Your task to perform on an android device: Search for a new mascara on Sephora Image 0: 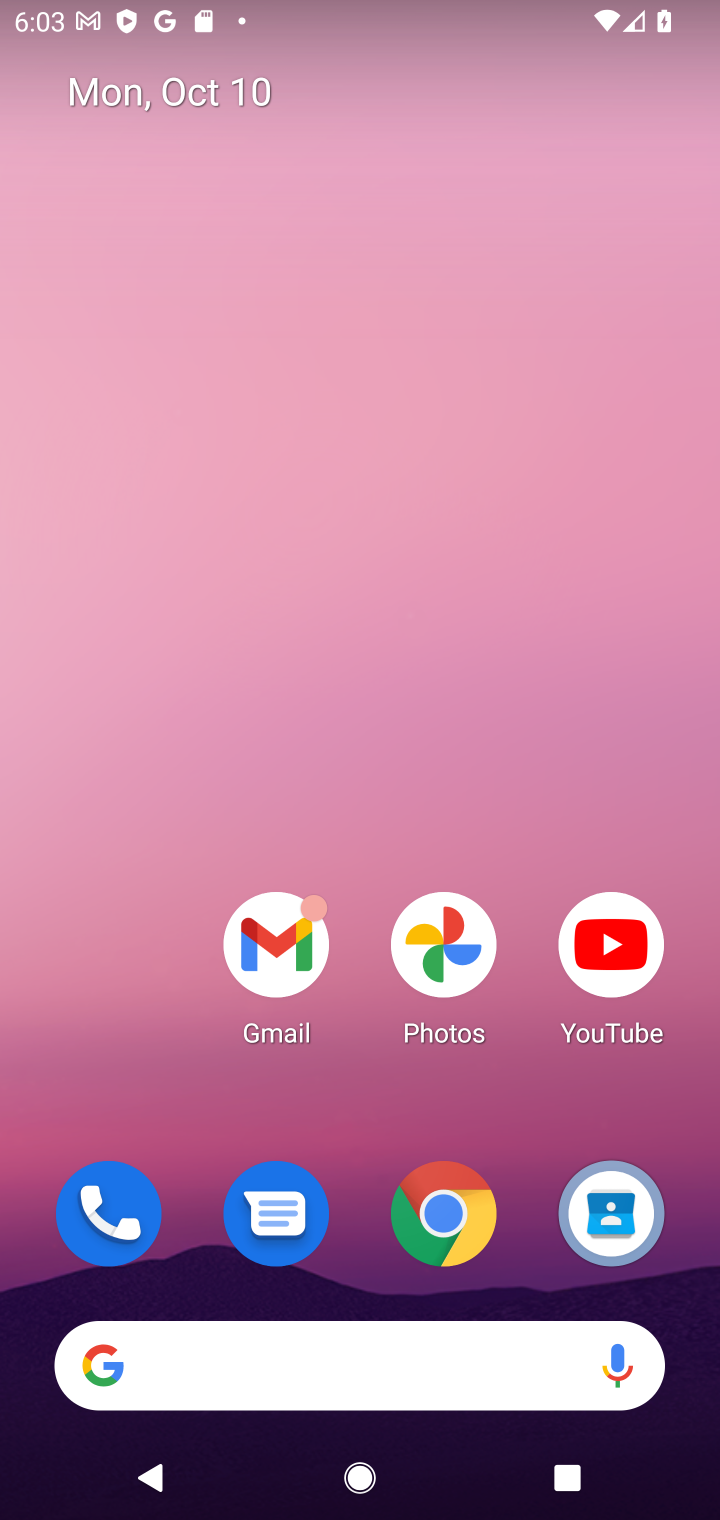
Step 0: click (263, 1362)
Your task to perform on an android device: Search for a new mascara on Sephora Image 1: 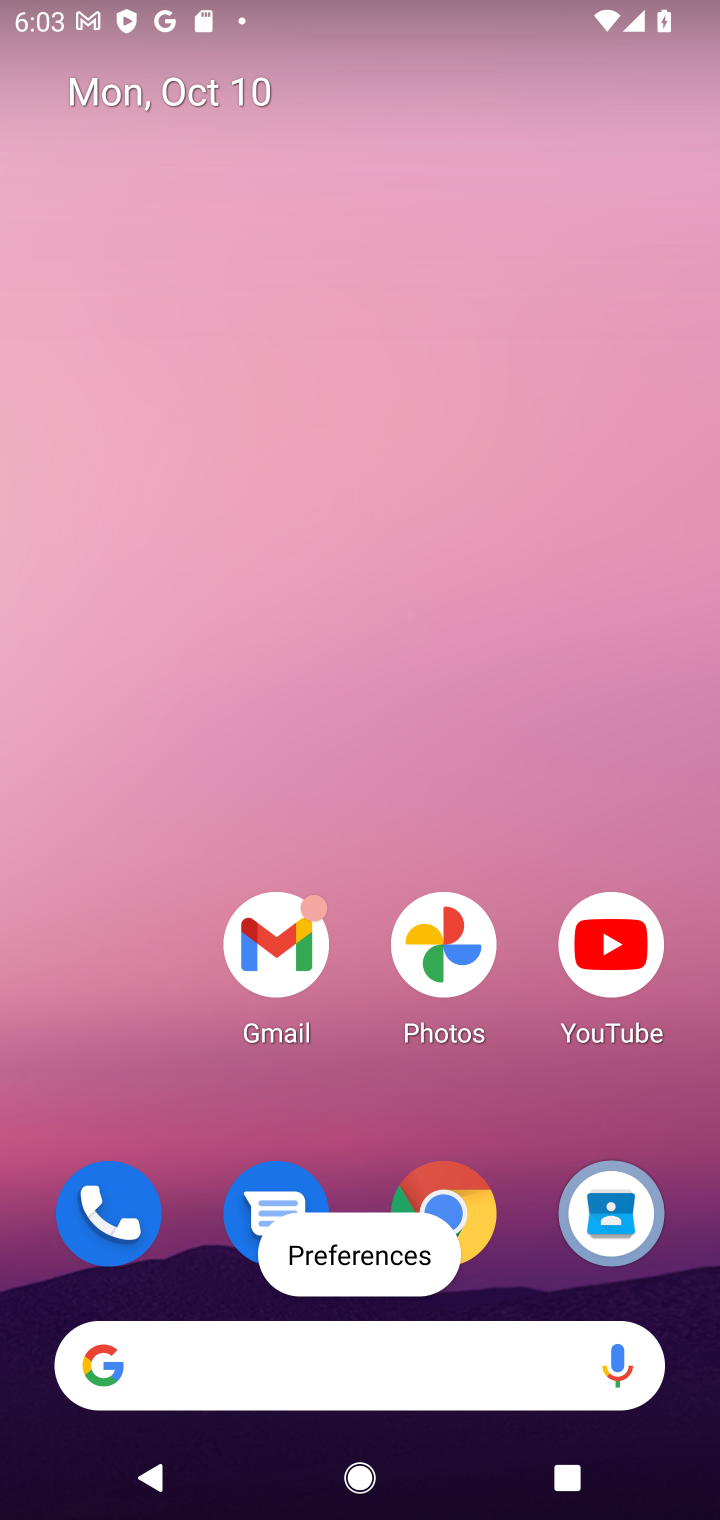
Step 1: click (280, 1357)
Your task to perform on an android device: Search for a new mascara on Sephora Image 2: 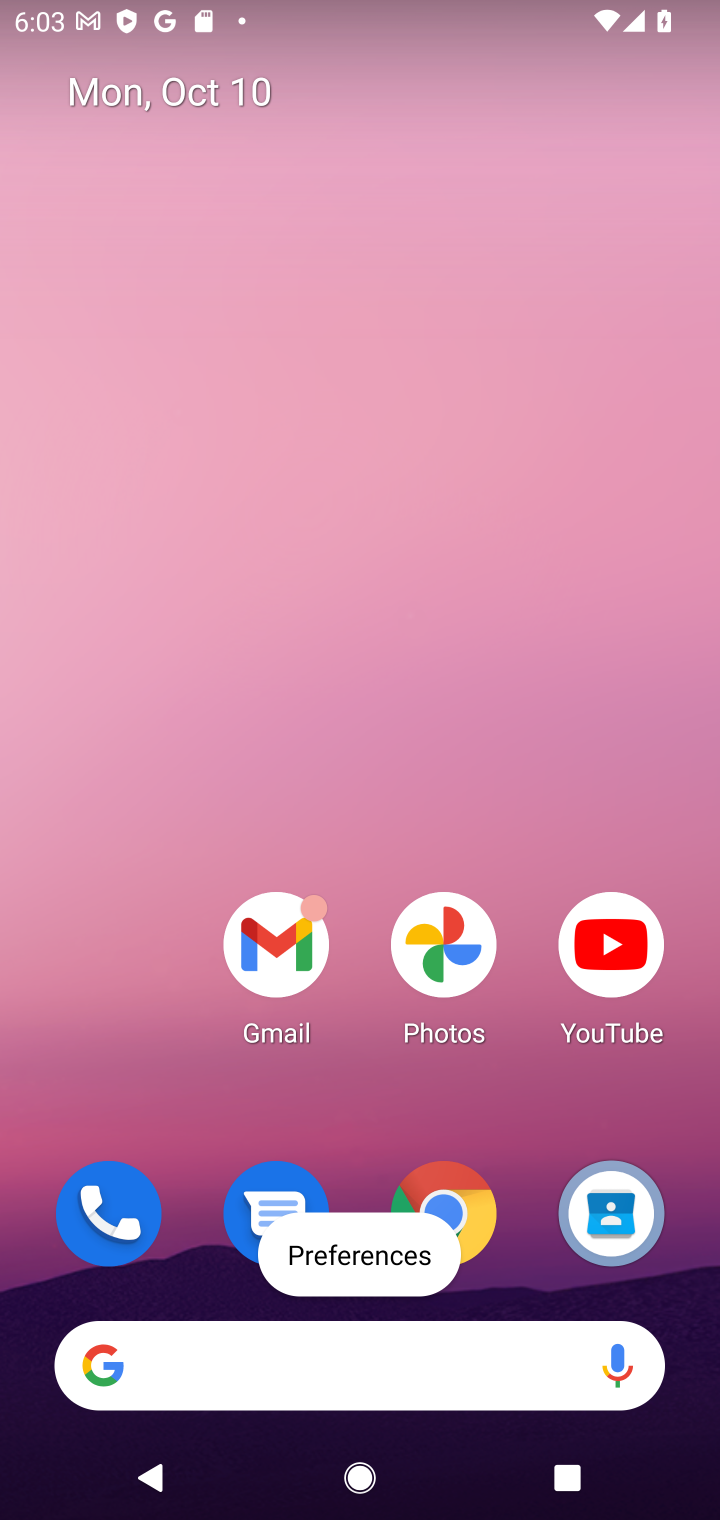
Step 2: click (310, 1359)
Your task to perform on an android device: Search for a new mascara on Sephora Image 3: 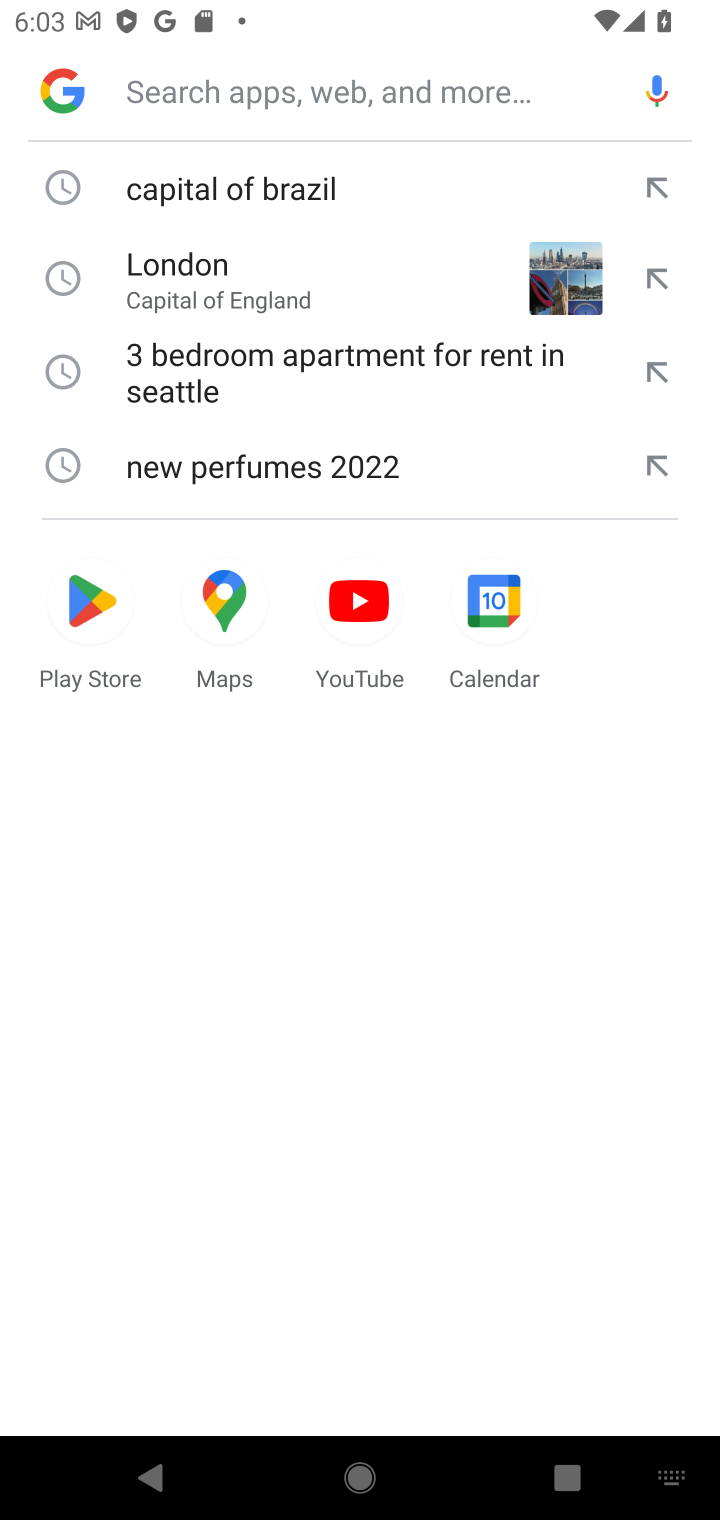
Step 3: type "new mascara on Sephora"
Your task to perform on an android device: Search for a new mascara on Sephora Image 4: 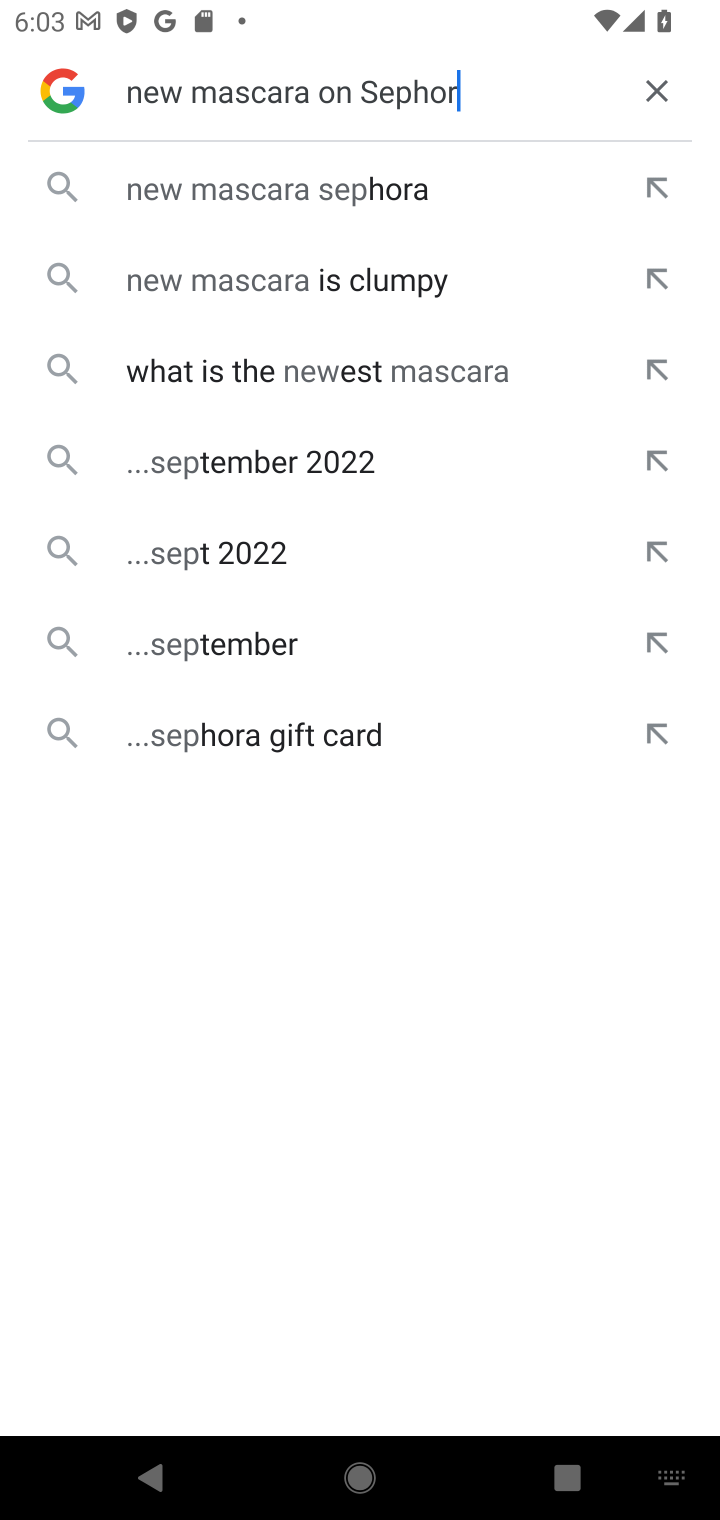
Step 4: type ""
Your task to perform on an android device: Search for a new mascara on Sephora Image 5: 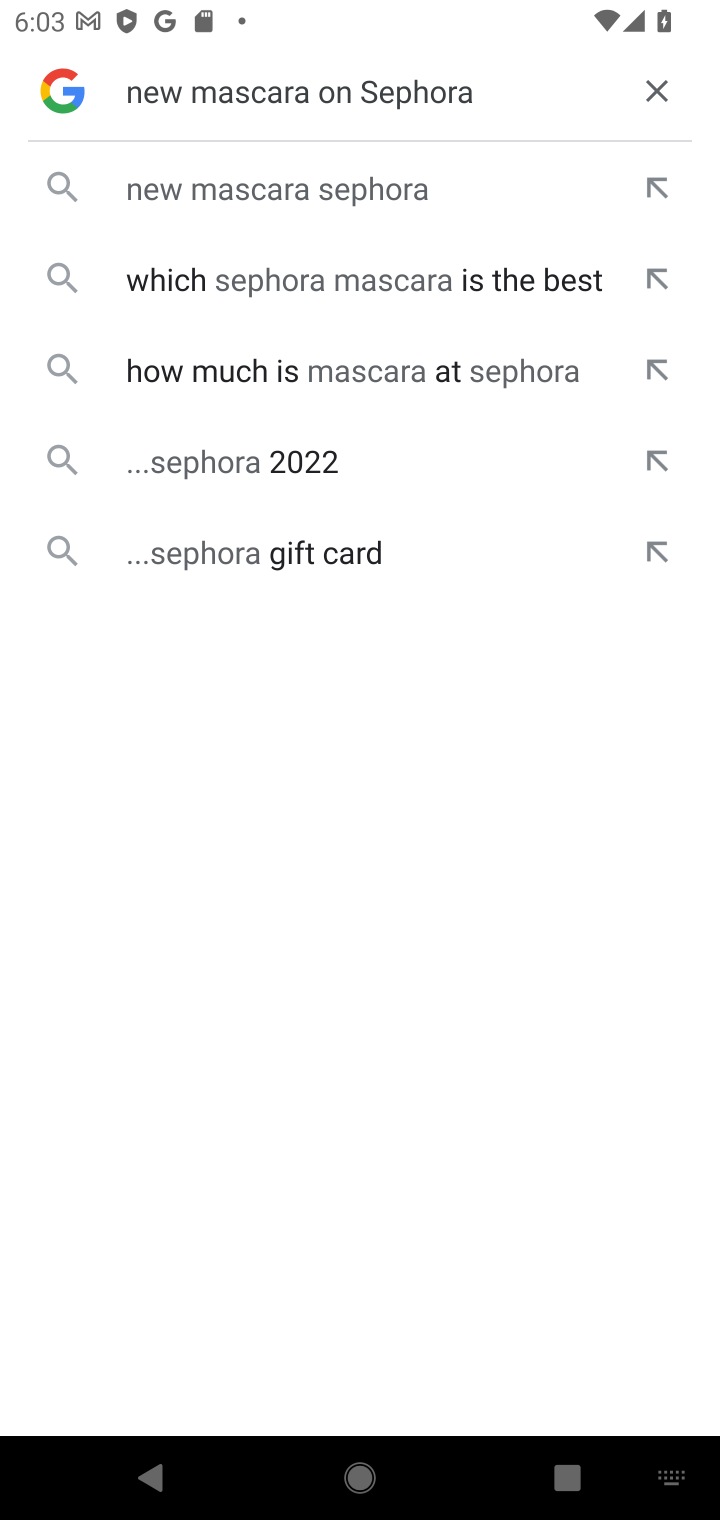
Step 5: click (403, 205)
Your task to perform on an android device: Search for a new mascara on Sephora Image 6: 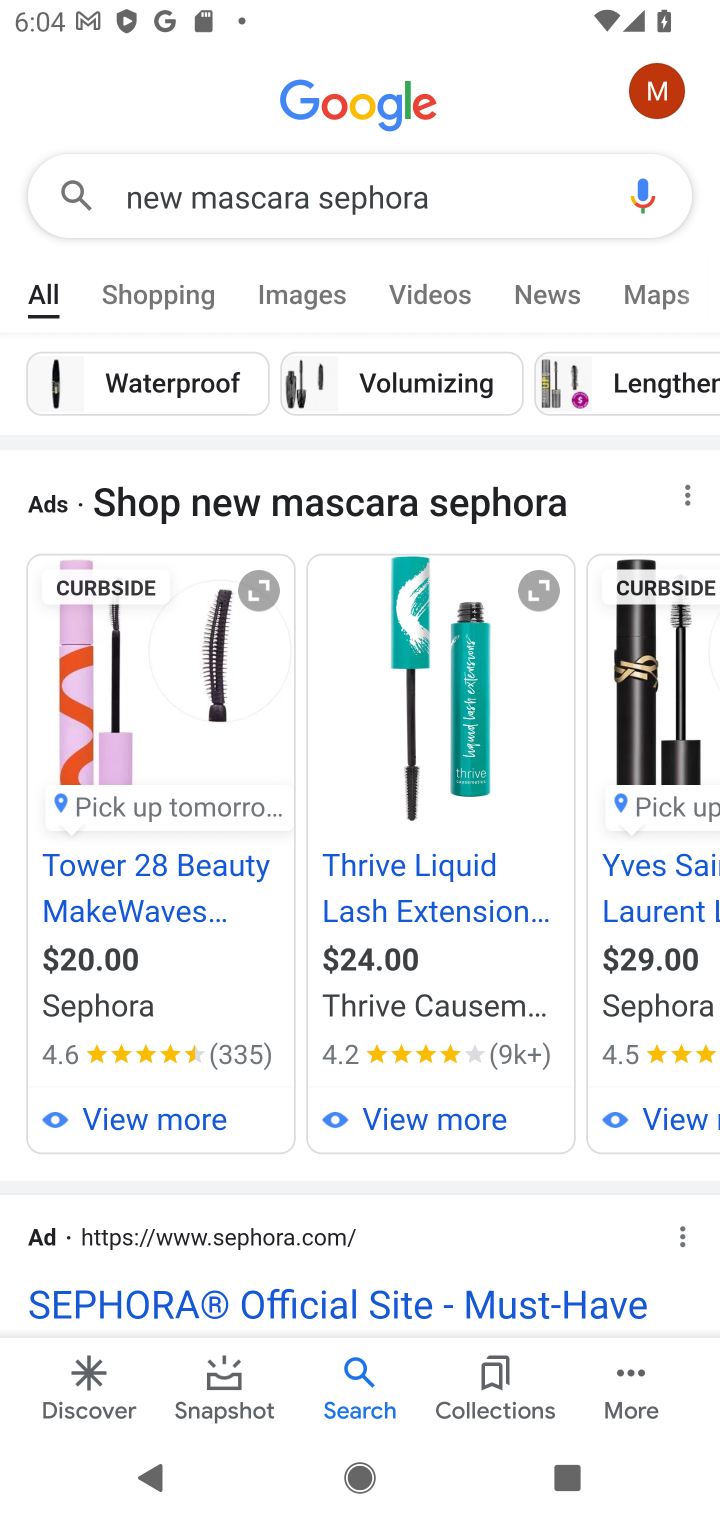
Step 6: task complete